Your task to perform on an android device: star an email in the gmail app Image 0: 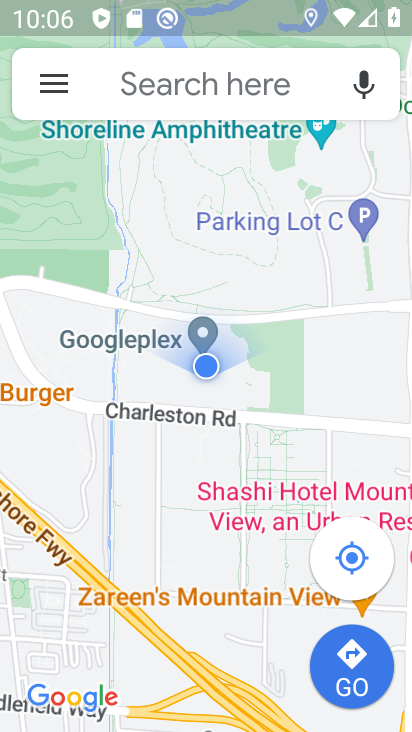
Step 0: press home button
Your task to perform on an android device: star an email in the gmail app Image 1: 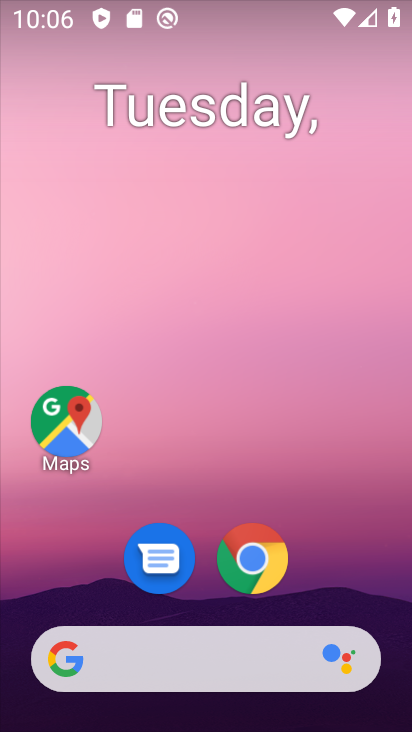
Step 1: drag from (322, 600) to (294, 13)
Your task to perform on an android device: star an email in the gmail app Image 2: 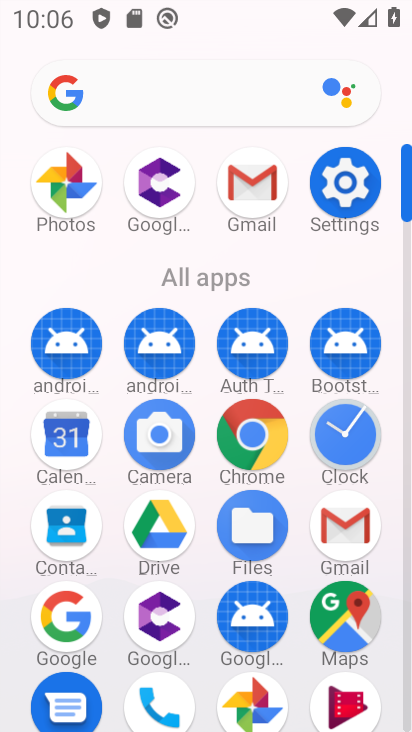
Step 2: click (344, 522)
Your task to perform on an android device: star an email in the gmail app Image 3: 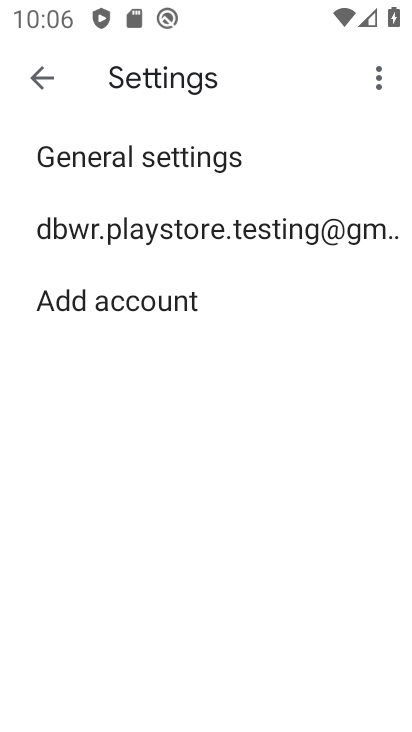
Step 3: click (26, 84)
Your task to perform on an android device: star an email in the gmail app Image 4: 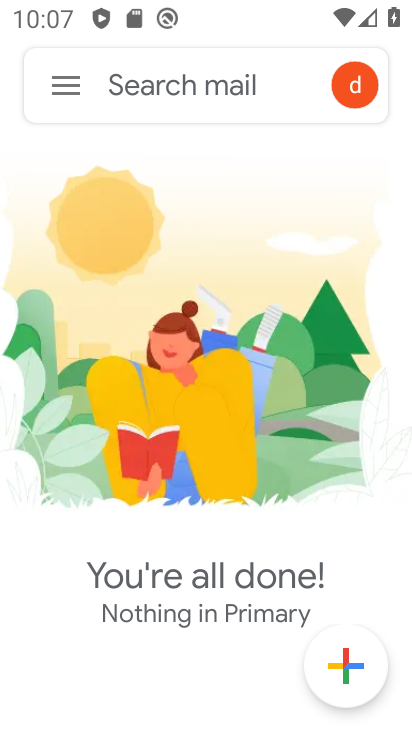
Step 4: click (68, 91)
Your task to perform on an android device: star an email in the gmail app Image 5: 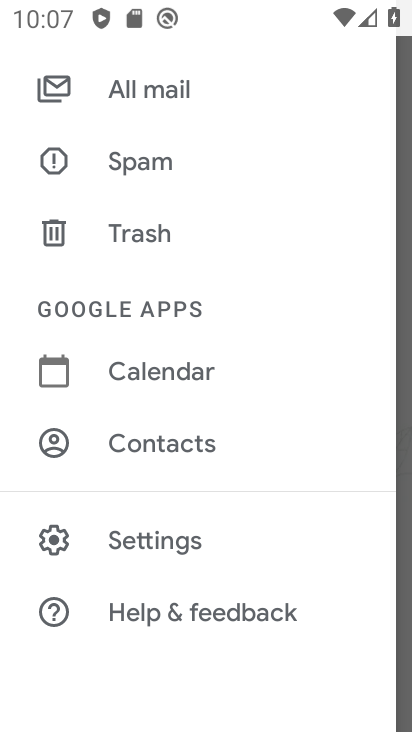
Step 5: click (166, 84)
Your task to perform on an android device: star an email in the gmail app Image 6: 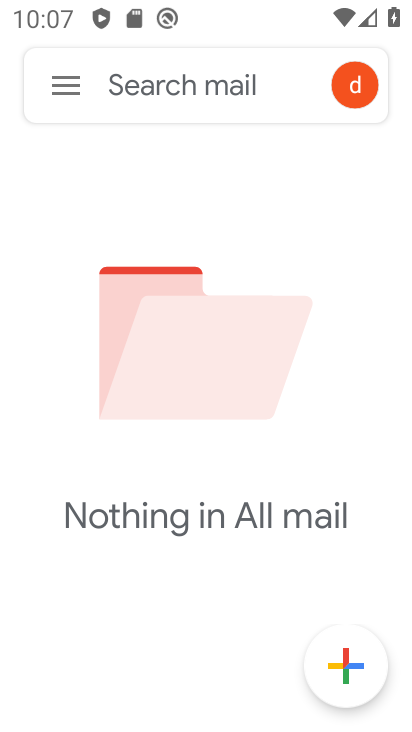
Step 6: task complete